Your task to perform on an android device: When is my next meeting? Image 0: 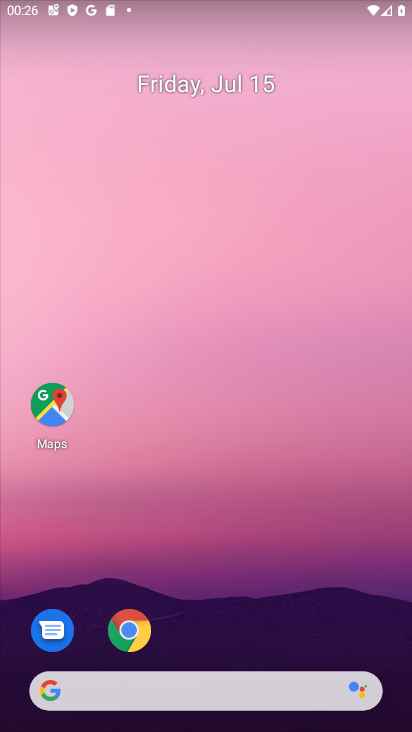
Step 0: drag from (322, 614) to (293, 41)
Your task to perform on an android device: When is my next meeting? Image 1: 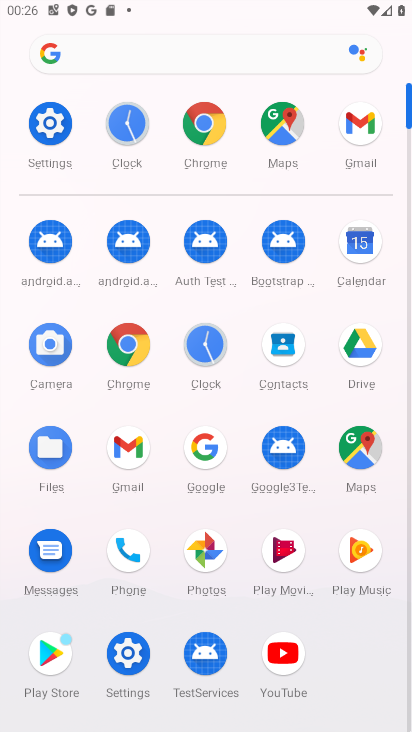
Step 1: click (369, 265)
Your task to perform on an android device: When is my next meeting? Image 2: 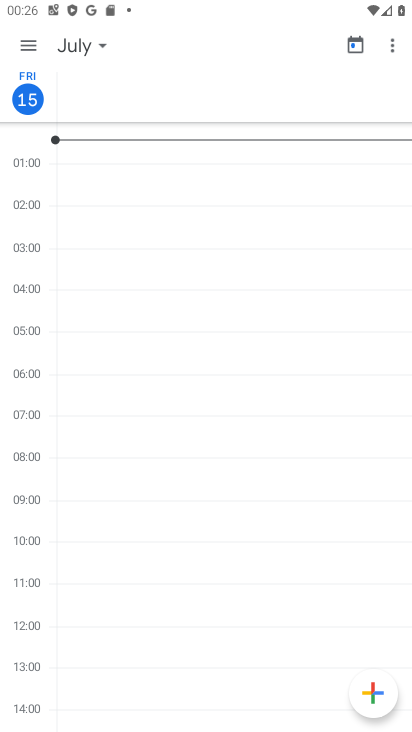
Step 2: task complete